Your task to perform on an android device: Open Google Chrome and click the shortcut for Amazon.com Image 0: 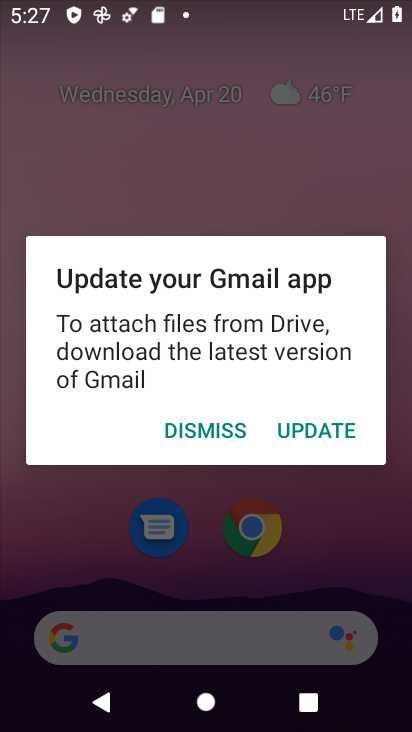
Step 0: press home button
Your task to perform on an android device: Open Google Chrome and click the shortcut for Amazon.com Image 1: 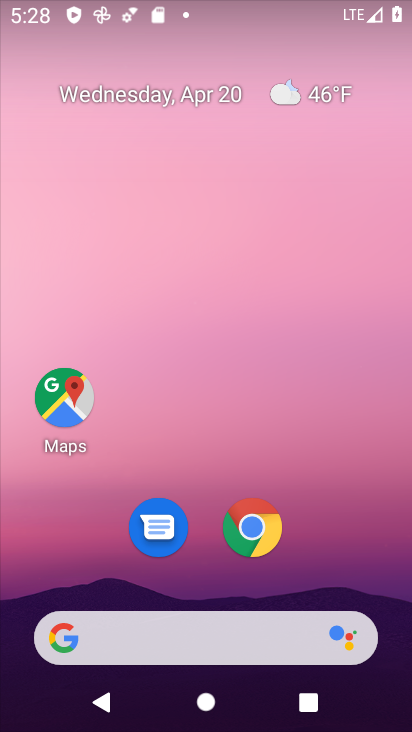
Step 1: click (260, 524)
Your task to perform on an android device: Open Google Chrome and click the shortcut for Amazon.com Image 2: 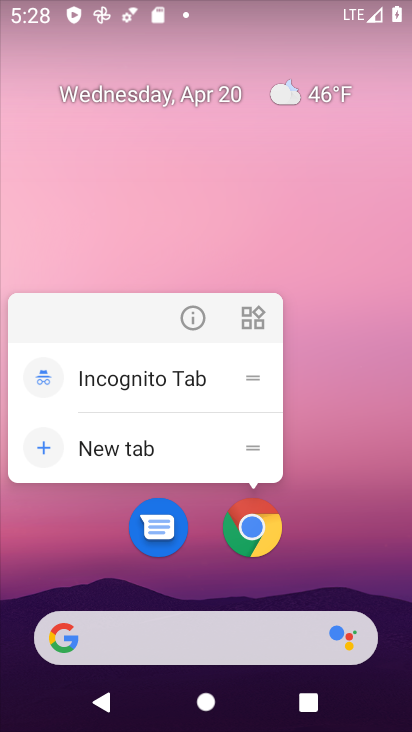
Step 2: click (257, 532)
Your task to perform on an android device: Open Google Chrome and click the shortcut for Amazon.com Image 3: 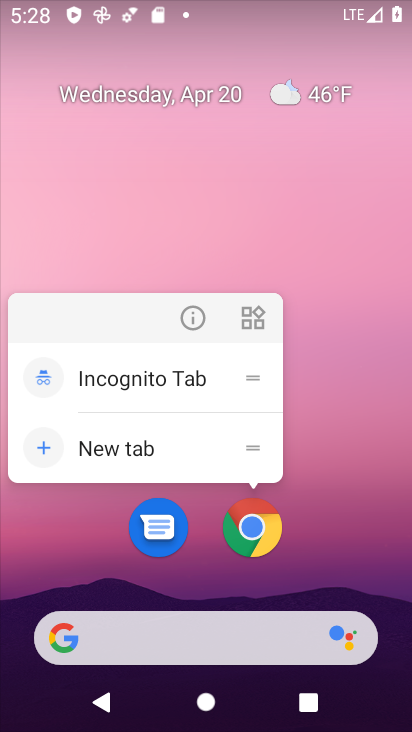
Step 3: click (252, 530)
Your task to perform on an android device: Open Google Chrome and click the shortcut for Amazon.com Image 4: 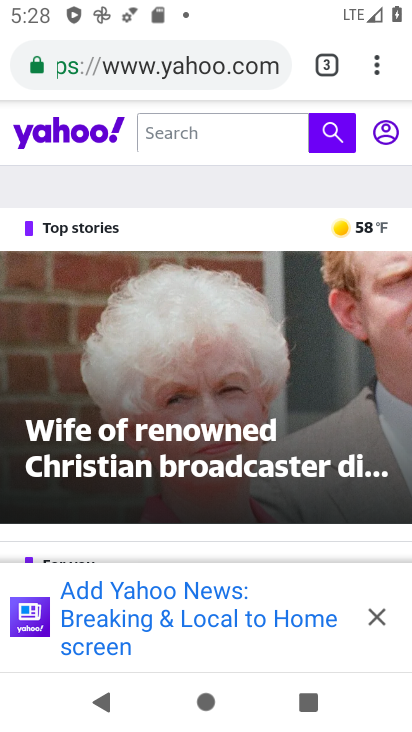
Step 4: click (326, 60)
Your task to perform on an android device: Open Google Chrome and click the shortcut for Amazon.com Image 5: 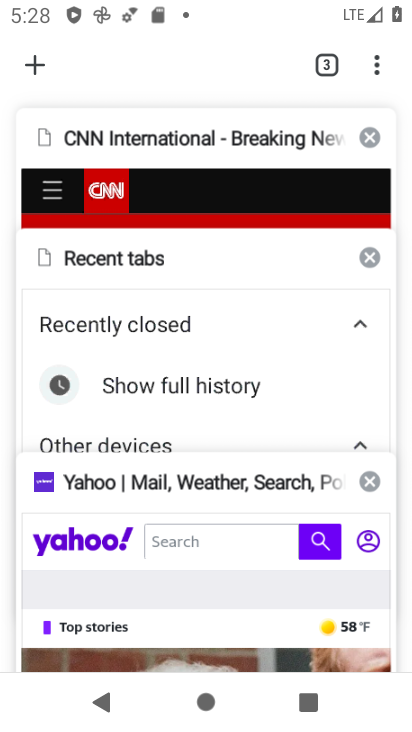
Step 5: click (33, 65)
Your task to perform on an android device: Open Google Chrome and click the shortcut for Amazon.com Image 6: 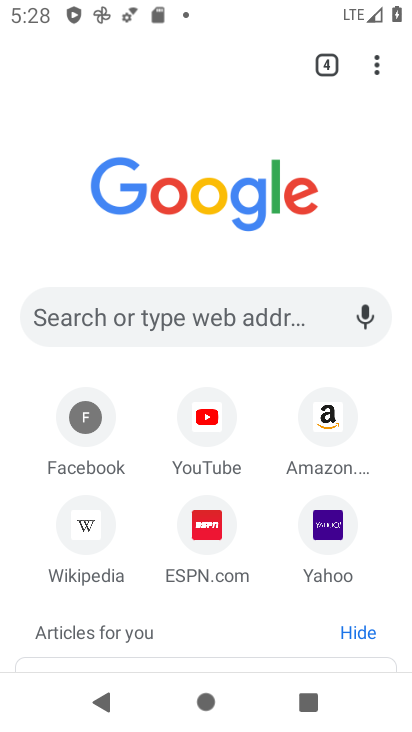
Step 6: click (331, 412)
Your task to perform on an android device: Open Google Chrome and click the shortcut for Amazon.com Image 7: 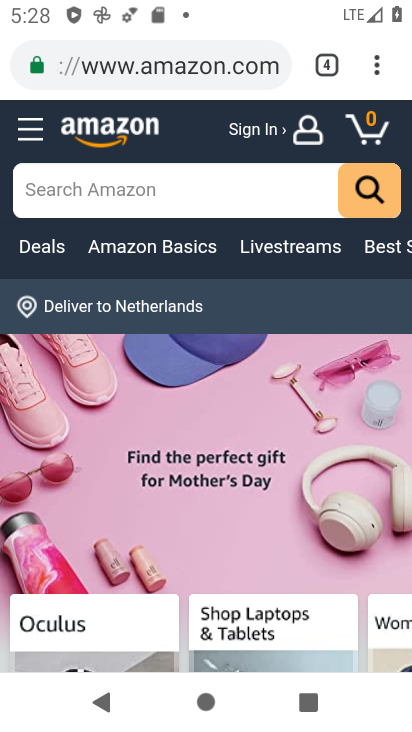
Step 7: task complete